Your task to perform on an android device: turn off location history Image 0: 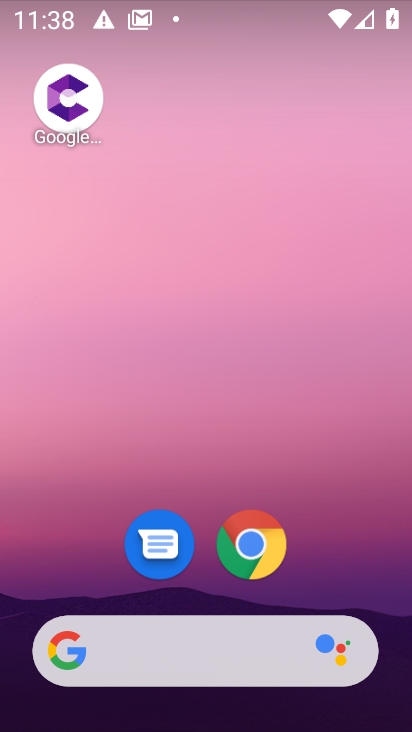
Step 0: drag from (394, 697) to (340, 65)
Your task to perform on an android device: turn off location history Image 1: 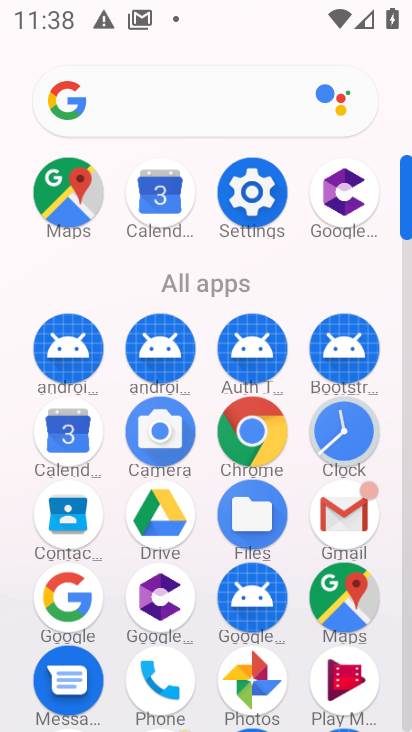
Step 1: click (250, 194)
Your task to perform on an android device: turn off location history Image 2: 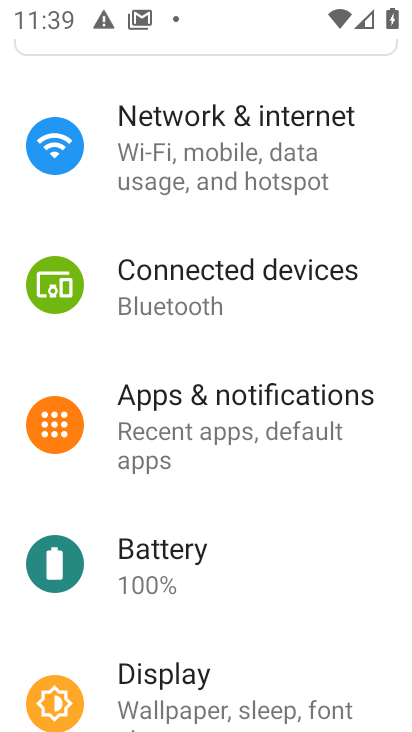
Step 2: drag from (306, 612) to (273, 266)
Your task to perform on an android device: turn off location history Image 3: 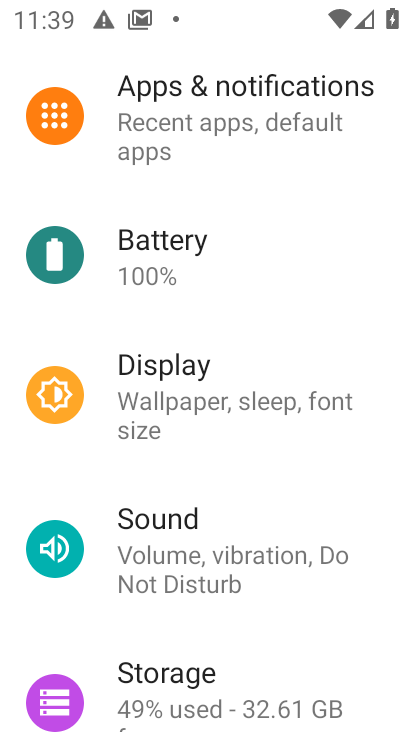
Step 3: drag from (324, 636) to (353, 243)
Your task to perform on an android device: turn off location history Image 4: 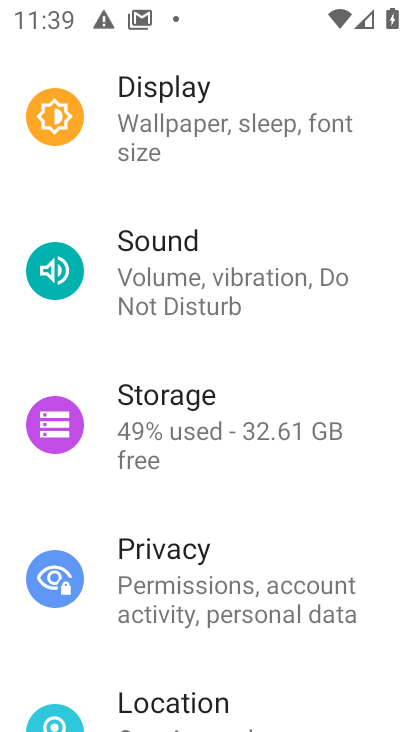
Step 4: click (159, 700)
Your task to perform on an android device: turn off location history Image 5: 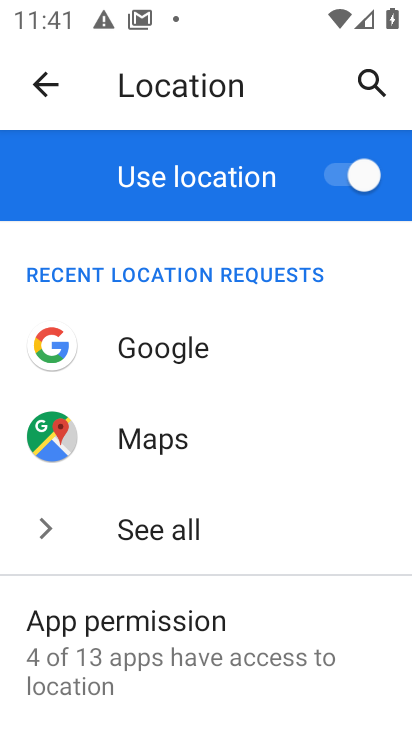
Step 5: drag from (279, 626) to (288, 235)
Your task to perform on an android device: turn off location history Image 6: 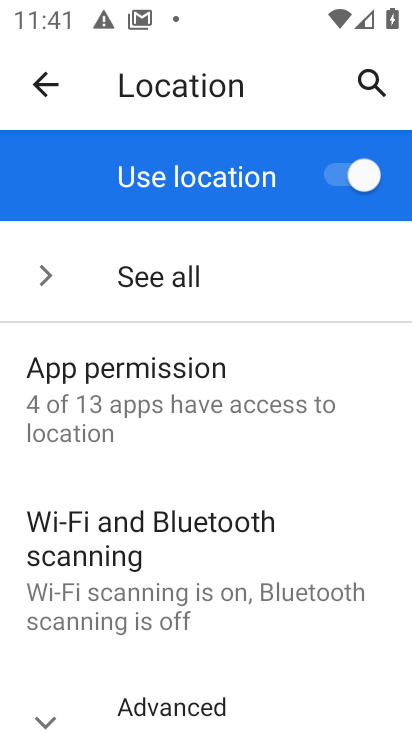
Step 6: click (48, 713)
Your task to perform on an android device: turn off location history Image 7: 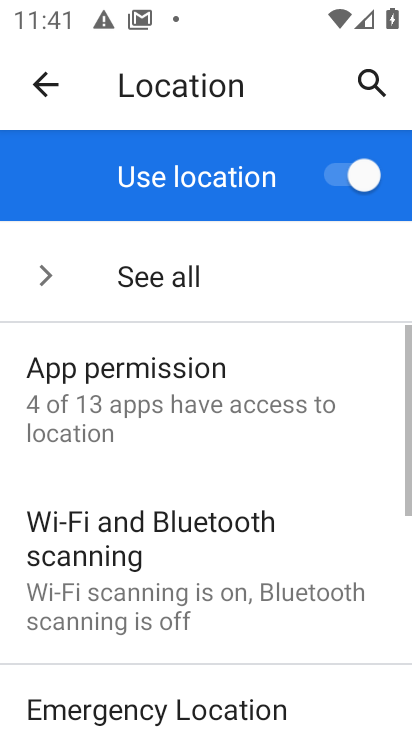
Step 7: drag from (376, 656) to (384, 377)
Your task to perform on an android device: turn off location history Image 8: 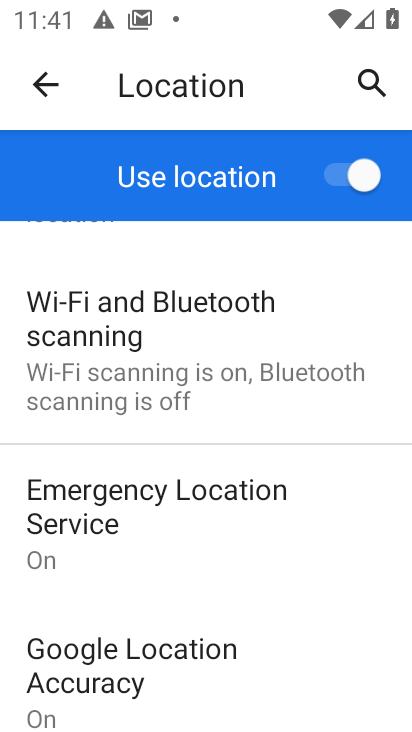
Step 8: drag from (303, 672) to (310, 405)
Your task to perform on an android device: turn off location history Image 9: 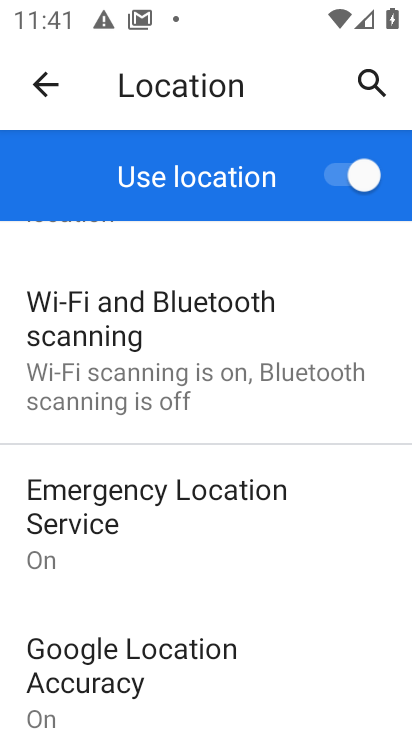
Step 9: drag from (295, 680) to (302, 321)
Your task to perform on an android device: turn off location history Image 10: 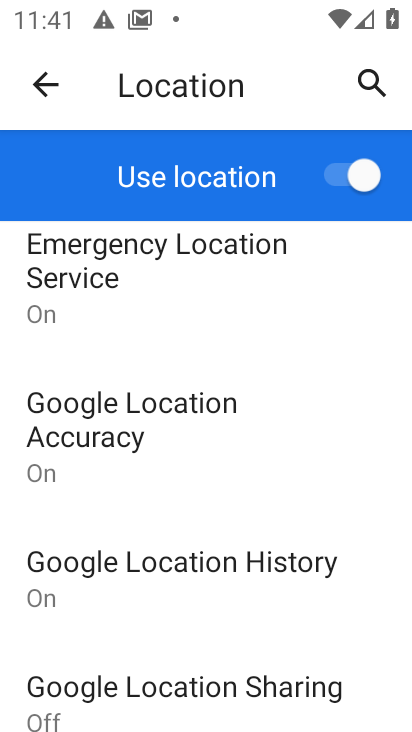
Step 10: click (108, 562)
Your task to perform on an android device: turn off location history Image 11: 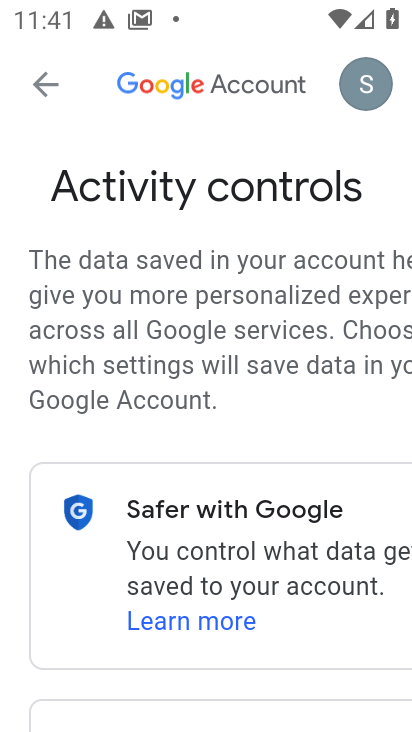
Step 11: drag from (230, 672) to (243, 270)
Your task to perform on an android device: turn off location history Image 12: 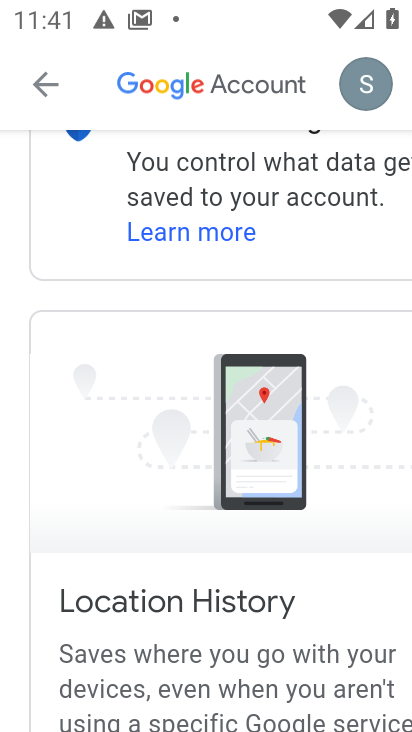
Step 12: drag from (304, 619) to (303, 294)
Your task to perform on an android device: turn off location history Image 13: 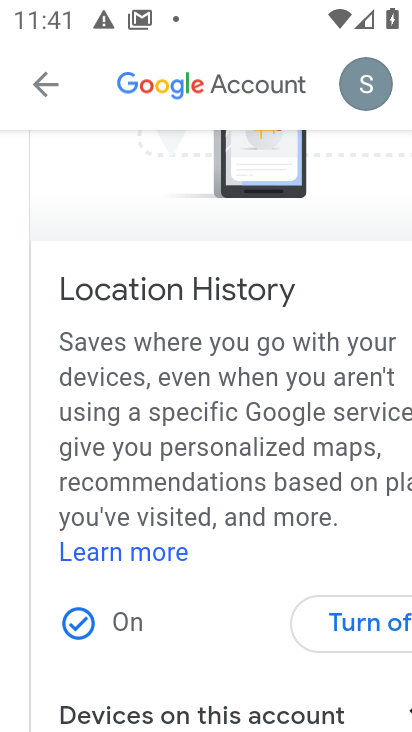
Step 13: drag from (275, 681) to (277, 332)
Your task to perform on an android device: turn off location history Image 14: 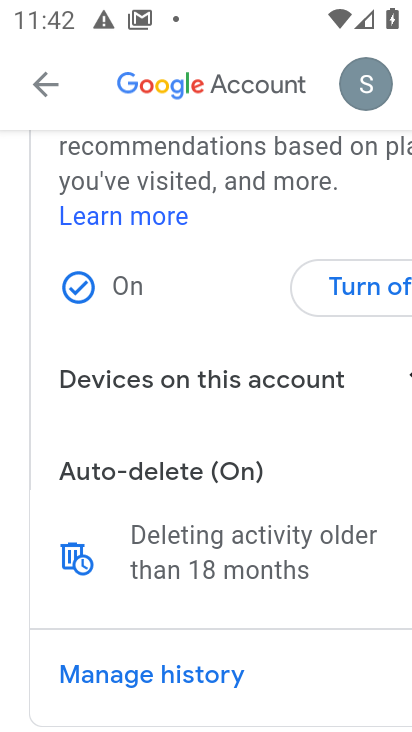
Step 14: click (367, 277)
Your task to perform on an android device: turn off location history Image 15: 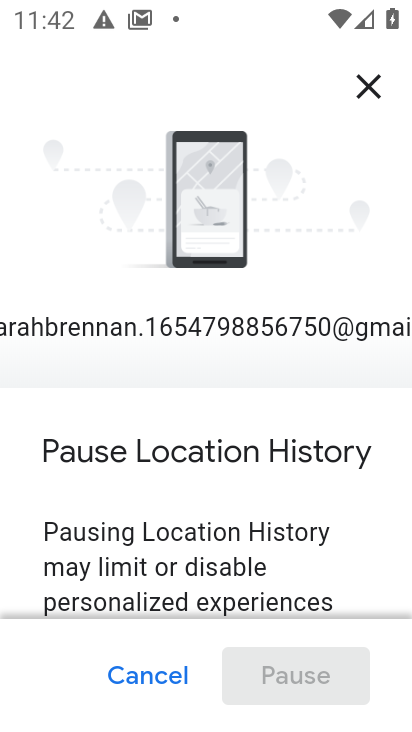
Step 15: drag from (284, 604) to (281, 146)
Your task to perform on an android device: turn off location history Image 16: 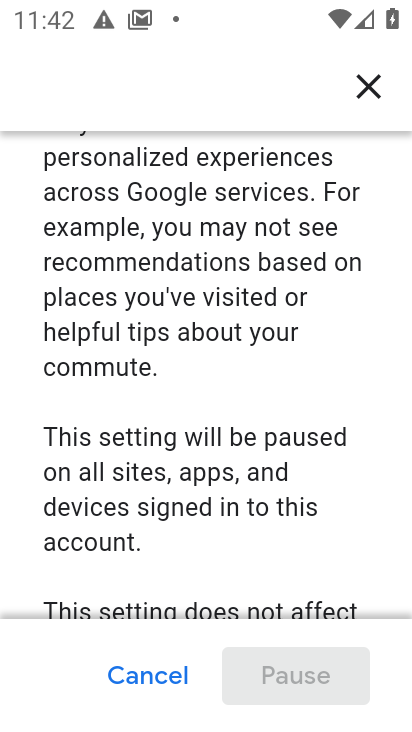
Step 16: drag from (324, 523) to (306, 212)
Your task to perform on an android device: turn off location history Image 17: 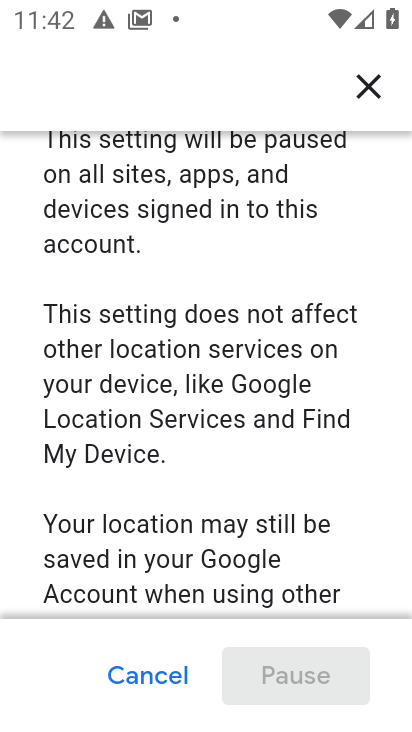
Step 17: drag from (281, 583) to (231, 147)
Your task to perform on an android device: turn off location history Image 18: 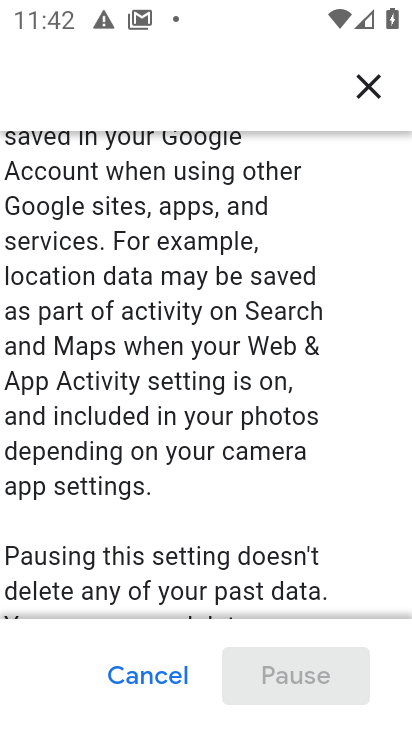
Step 18: drag from (292, 515) to (298, 206)
Your task to perform on an android device: turn off location history Image 19: 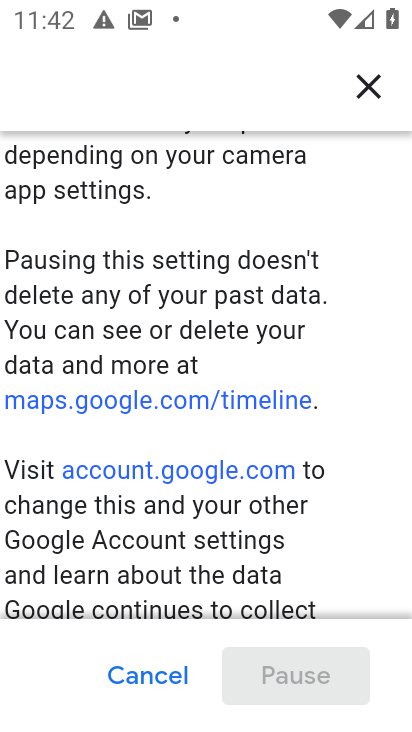
Step 19: drag from (287, 603) to (288, 101)
Your task to perform on an android device: turn off location history Image 20: 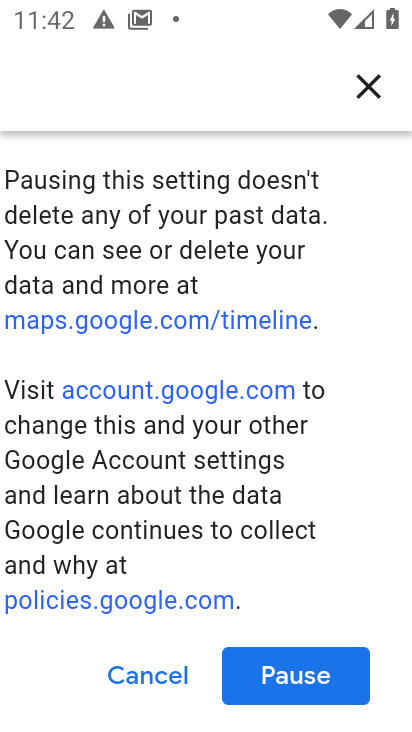
Step 20: click (295, 667)
Your task to perform on an android device: turn off location history Image 21: 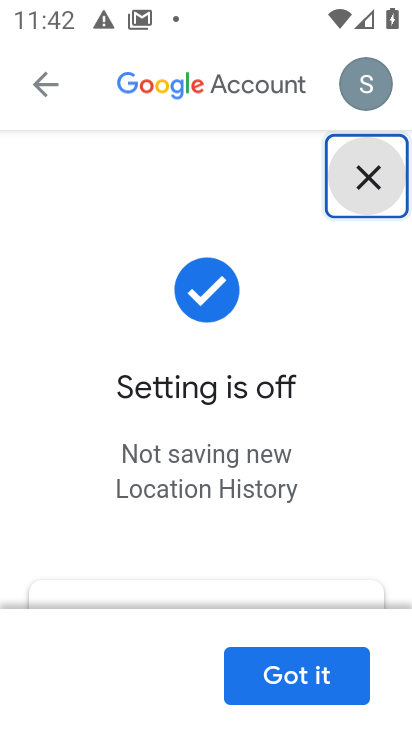
Step 21: click (270, 658)
Your task to perform on an android device: turn off location history Image 22: 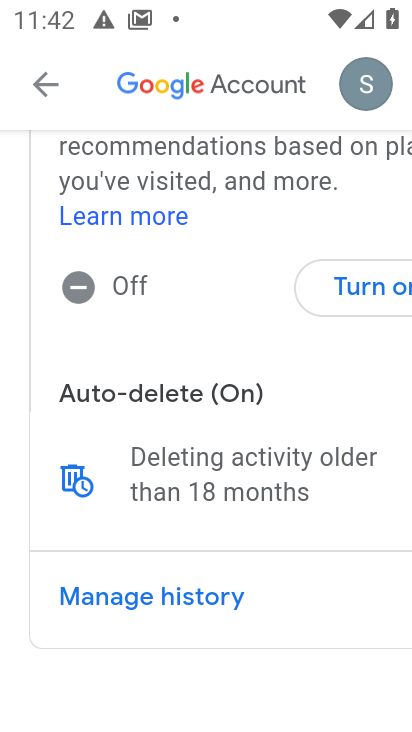
Step 22: task complete